Your task to perform on an android device: Show me recent news Image 0: 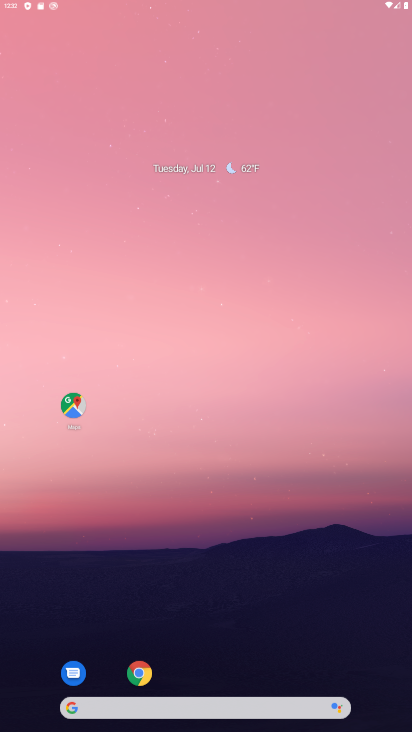
Step 0: press home button
Your task to perform on an android device: Show me recent news Image 1: 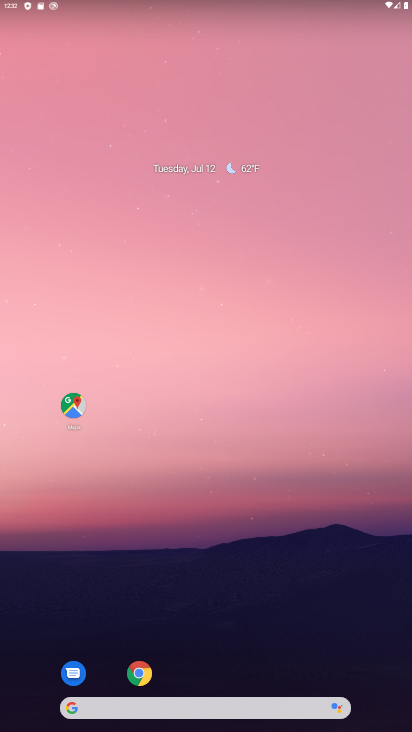
Step 1: task complete